Your task to perform on an android device: change text size in settings app Image 0: 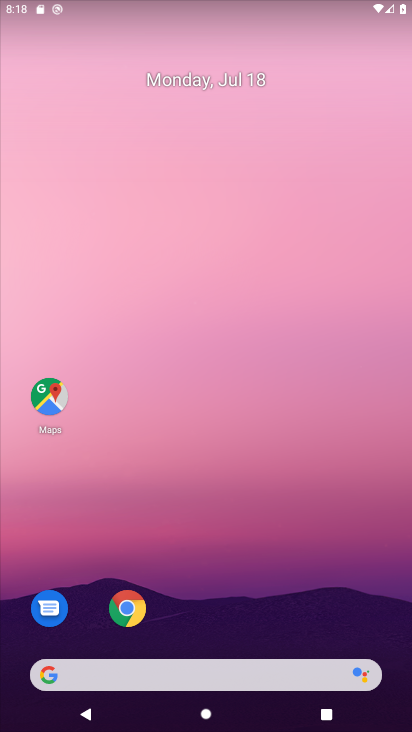
Step 0: drag from (181, 668) to (270, 2)
Your task to perform on an android device: change text size in settings app Image 1: 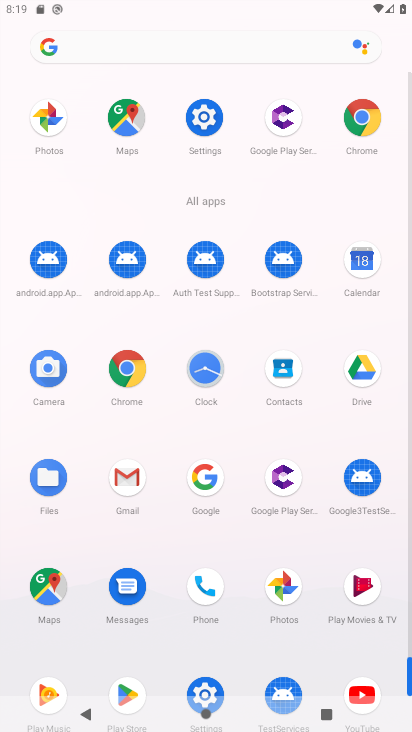
Step 1: click (204, 115)
Your task to perform on an android device: change text size in settings app Image 2: 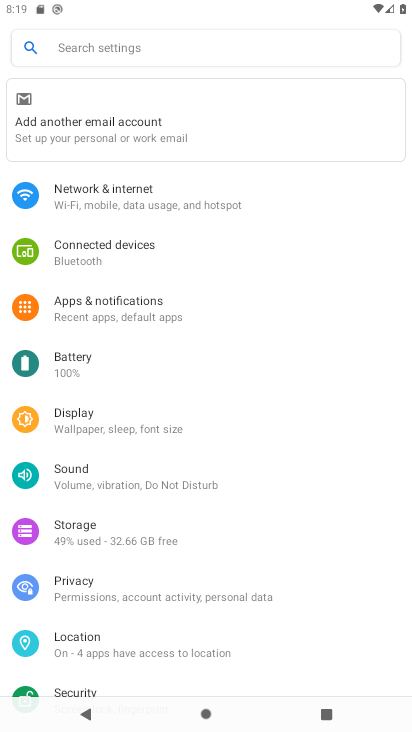
Step 2: drag from (115, 565) to (202, 471)
Your task to perform on an android device: change text size in settings app Image 3: 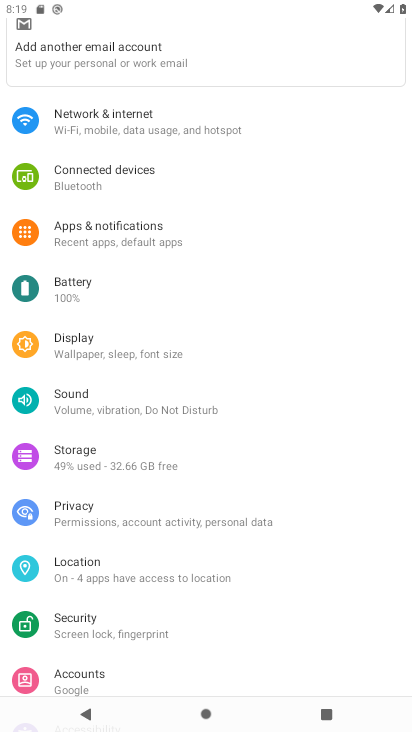
Step 3: drag from (139, 559) to (264, 401)
Your task to perform on an android device: change text size in settings app Image 4: 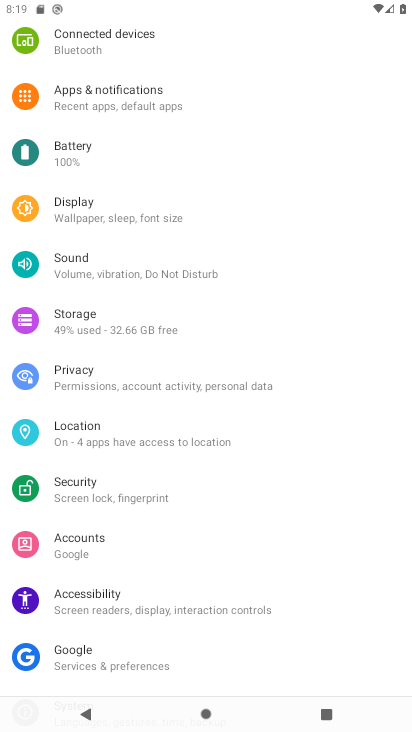
Step 4: click (114, 599)
Your task to perform on an android device: change text size in settings app Image 5: 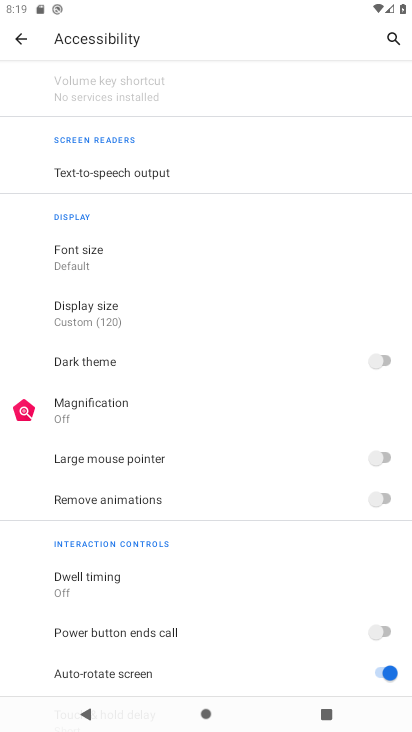
Step 5: click (98, 259)
Your task to perform on an android device: change text size in settings app Image 6: 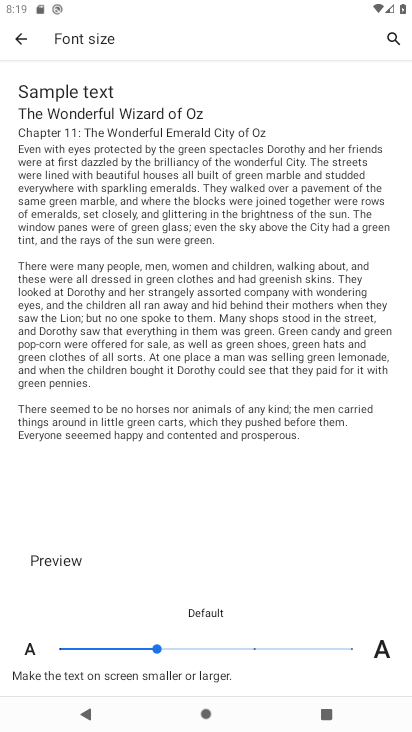
Step 6: click (251, 648)
Your task to perform on an android device: change text size in settings app Image 7: 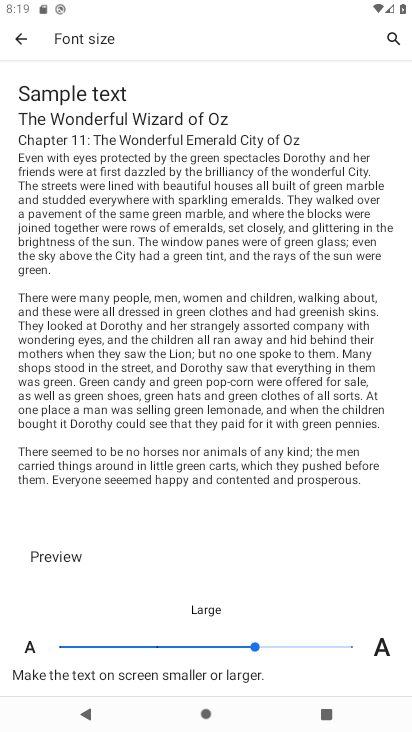
Step 7: task complete